Your task to perform on an android device: change the clock display to show seconds Image 0: 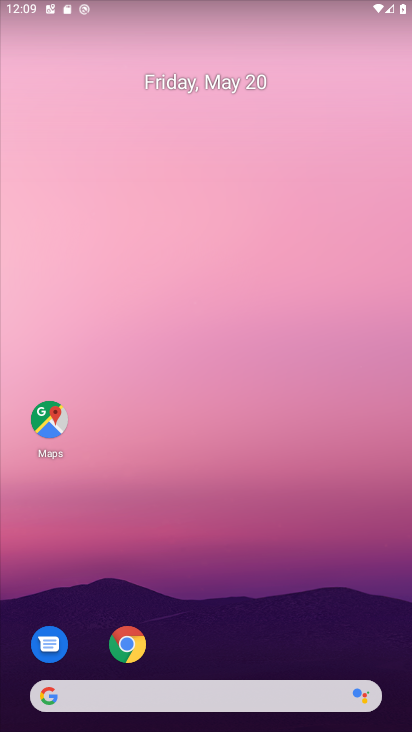
Step 0: drag from (173, 668) to (194, 402)
Your task to perform on an android device: change the clock display to show seconds Image 1: 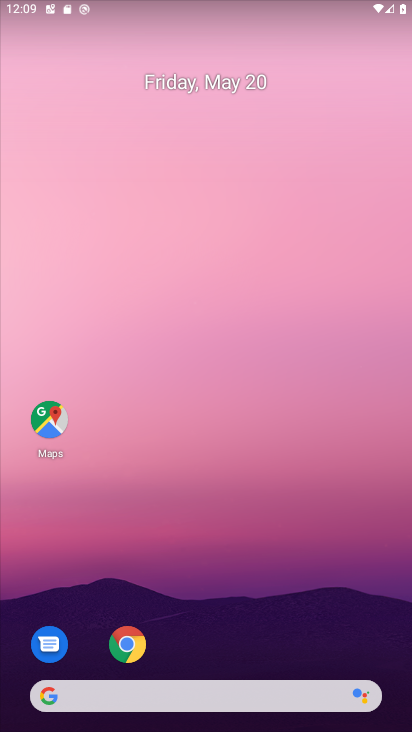
Step 1: drag from (214, 640) to (257, 325)
Your task to perform on an android device: change the clock display to show seconds Image 2: 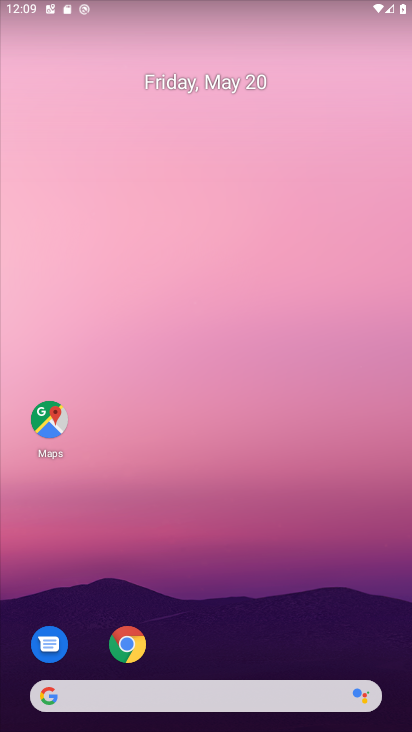
Step 2: drag from (154, 667) to (176, 292)
Your task to perform on an android device: change the clock display to show seconds Image 3: 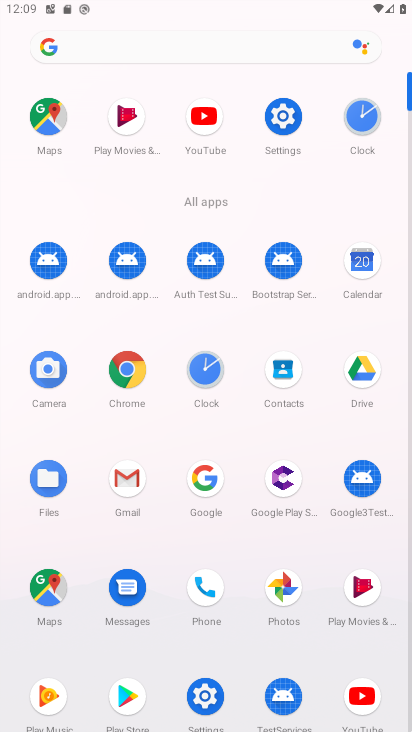
Step 3: click (369, 122)
Your task to perform on an android device: change the clock display to show seconds Image 4: 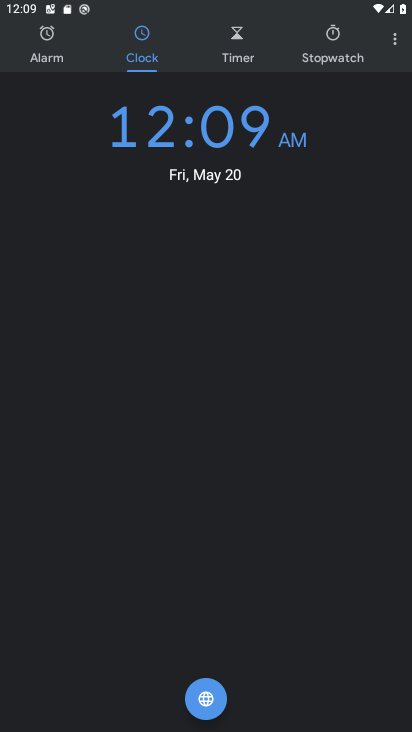
Step 4: click (393, 43)
Your task to perform on an android device: change the clock display to show seconds Image 5: 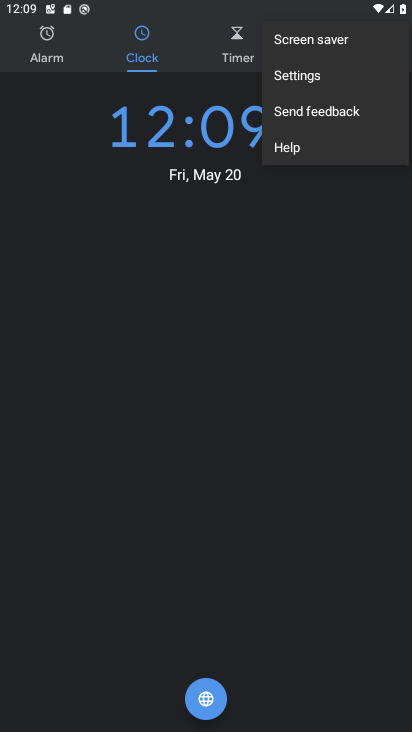
Step 5: click (288, 77)
Your task to perform on an android device: change the clock display to show seconds Image 6: 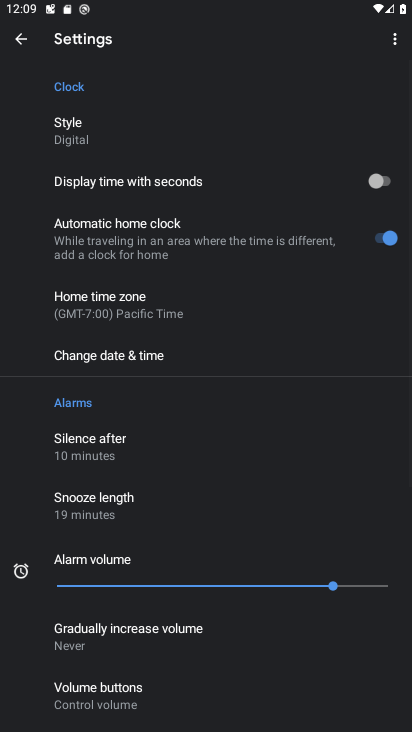
Step 6: click (383, 178)
Your task to perform on an android device: change the clock display to show seconds Image 7: 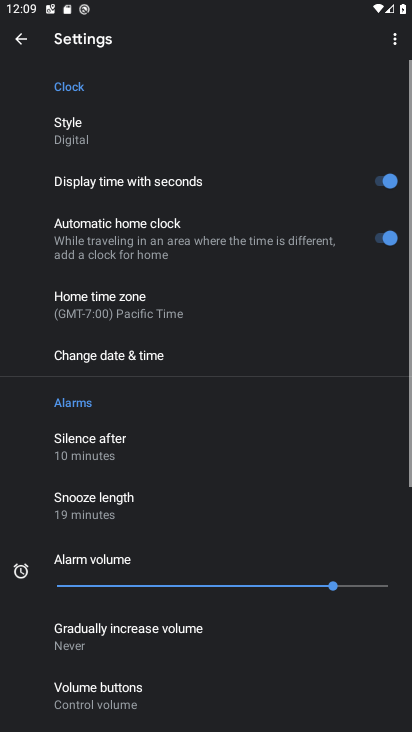
Step 7: task complete